Your task to perform on an android device: turn notification dots on Image 0: 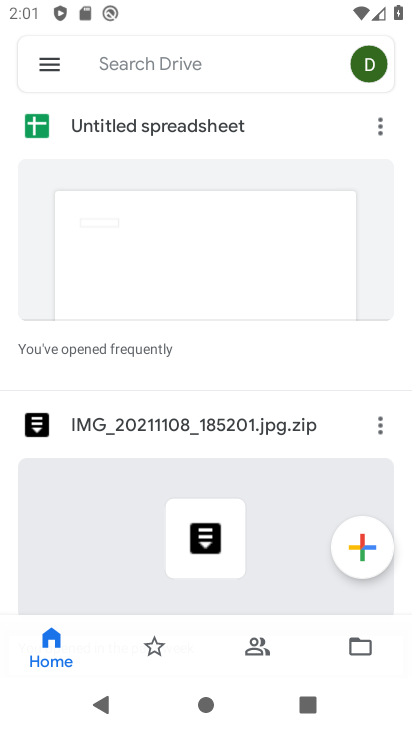
Step 0: press home button
Your task to perform on an android device: turn notification dots on Image 1: 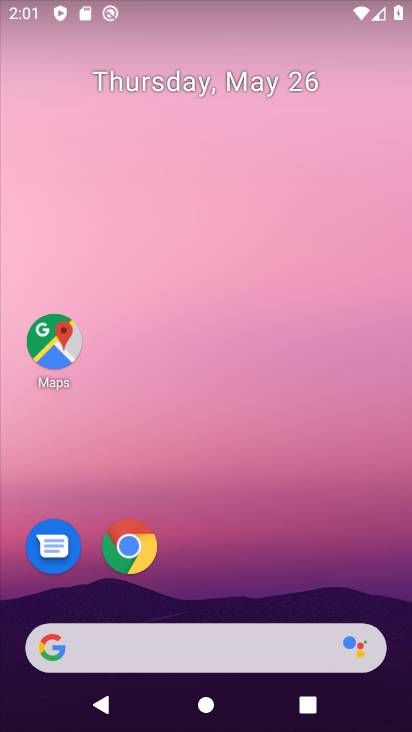
Step 1: drag from (266, 540) to (252, 108)
Your task to perform on an android device: turn notification dots on Image 2: 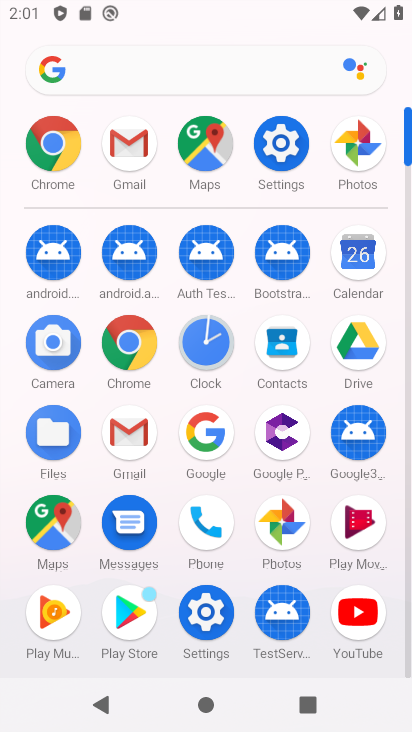
Step 2: click (274, 143)
Your task to perform on an android device: turn notification dots on Image 3: 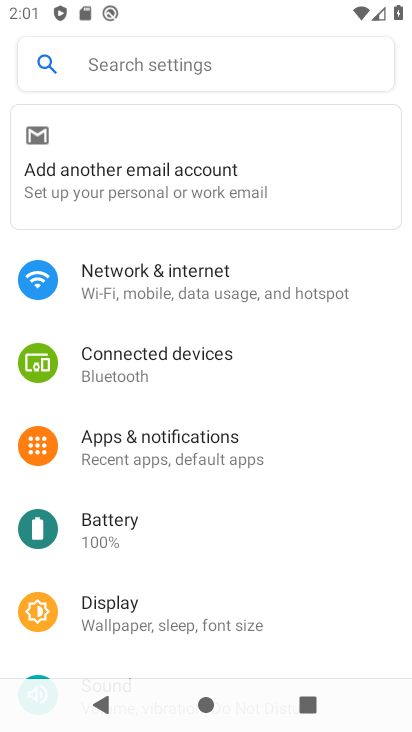
Step 3: click (196, 454)
Your task to perform on an android device: turn notification dots on Image 4: 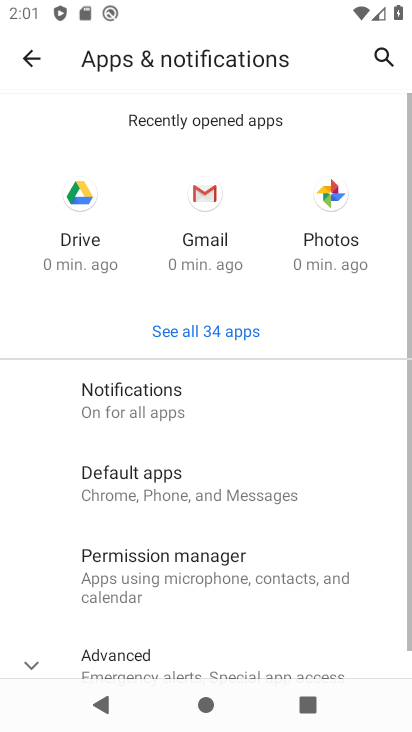
Step 4: click (163, 411)
Your task to perform on an android device: turn notification dots on Image 5: 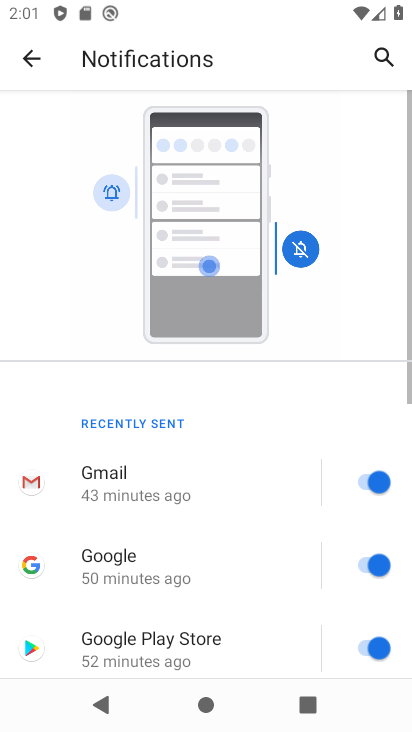
Step 5: click (235, 31)
Your task to perform on an android device: turn notification dots on Image 6: 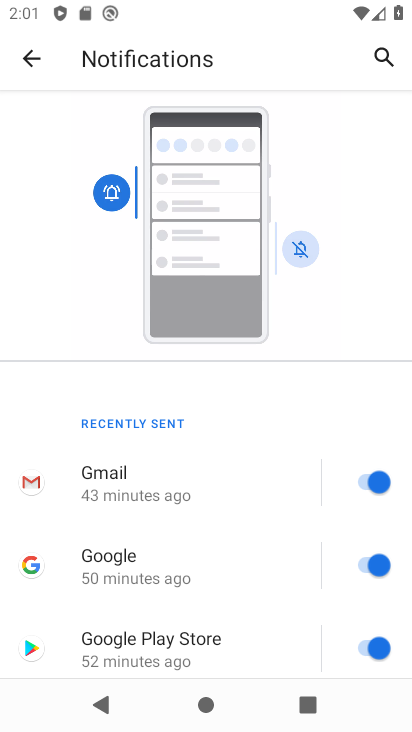
Step 6: drag from (144, 567) to (218, 102)
Your task to perform on an android device: turn notification dots on Image 7: 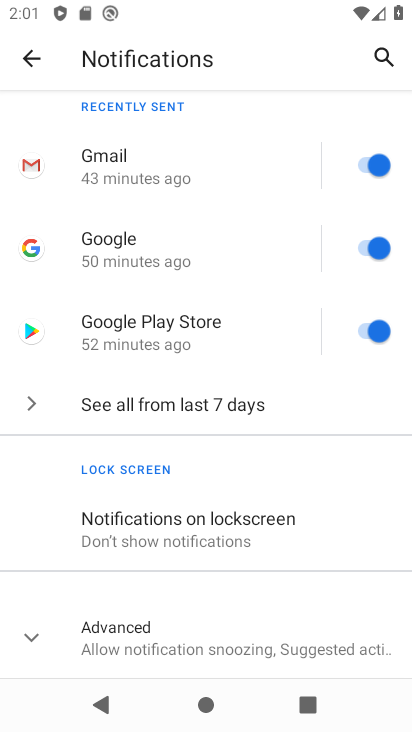
Step 7: click (168, 645)
Your task to perform on an android device: turn notification dots on Image 8: 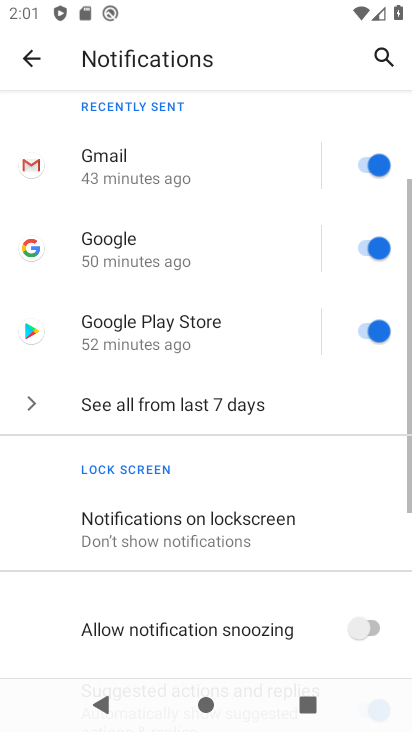
Step 8: task complete